Your task to perform on an android device: change text size in settings app Image 0: 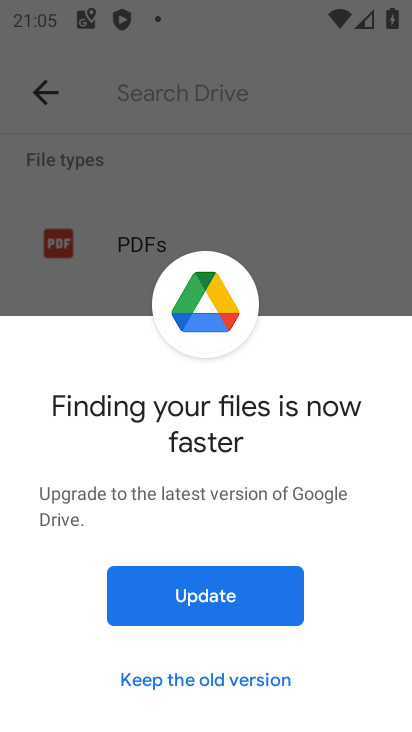
Step 0: press home button
Your task to perform on an android device: change text size in settings app Image 1: 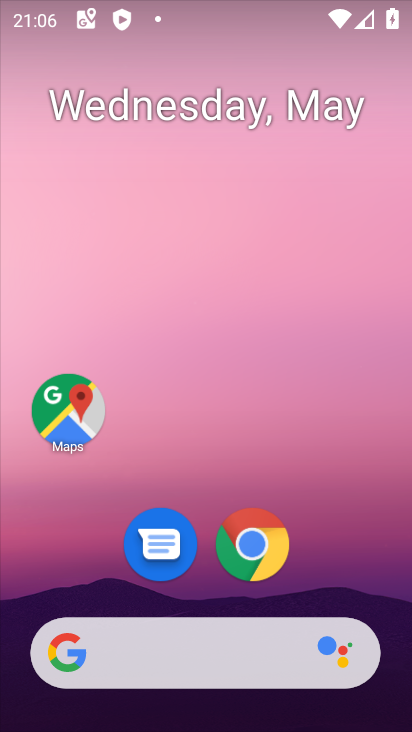
Step 1: drag from (210, 596) to (210, 8)
Your task to perform on an android device: change text size in settings app Image 2: 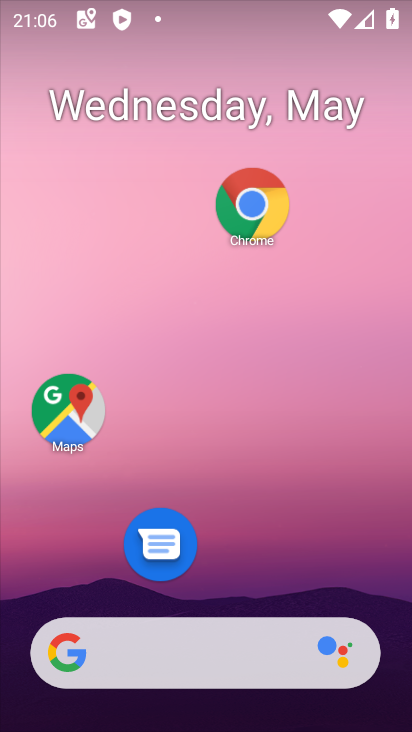
Step 2: drag from (217, 587) to (188, 188)
Your task to perform on an android device: change text size in settings app Image 3: 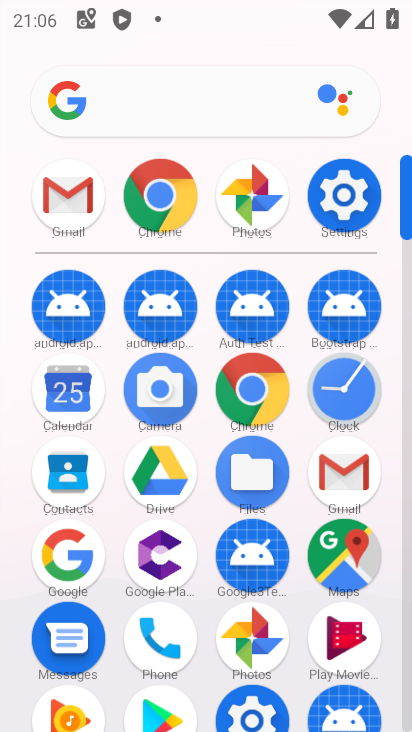
Step 3: click (336, 205)
Your task to perform on an android device: change text size in settings app Image 4: 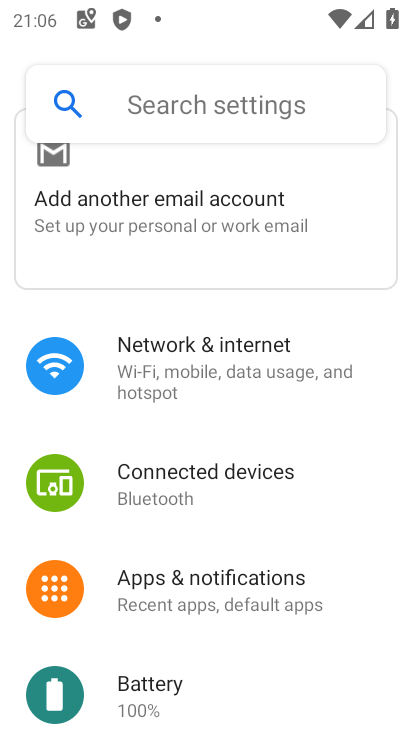
Step 4: drag from (211, 649) to (228, 267)
Your task to perform on an android device: change text size in settings app Image 5: 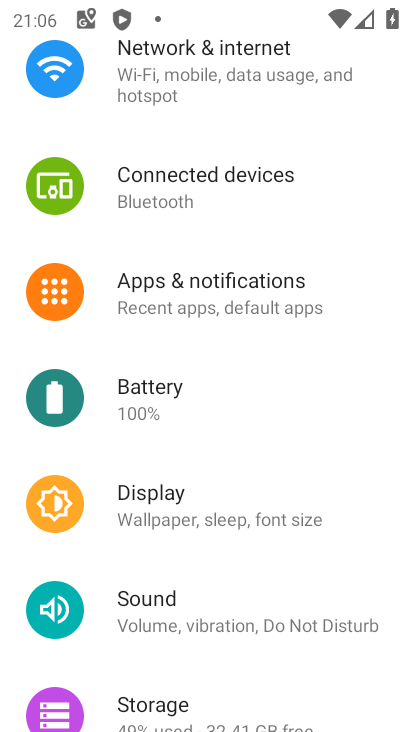
Step 5: drag from (130, 669) to (141, 342)
Your task to perform on an android device: change text size in settings app Image 6: 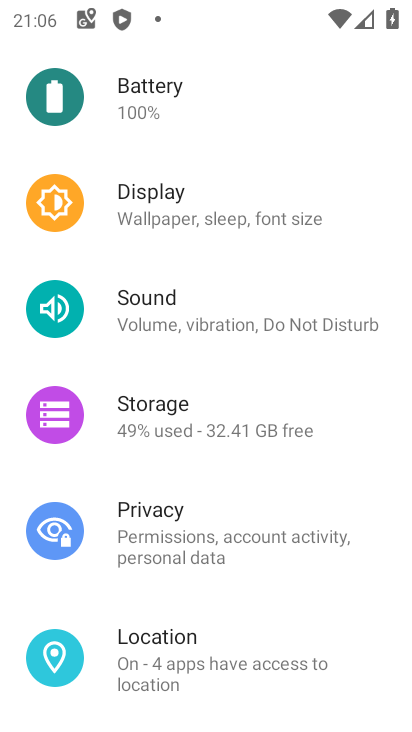
Step 6: click (149, 193)
Your task to perform on an android device: change text size in settings app Image 7: 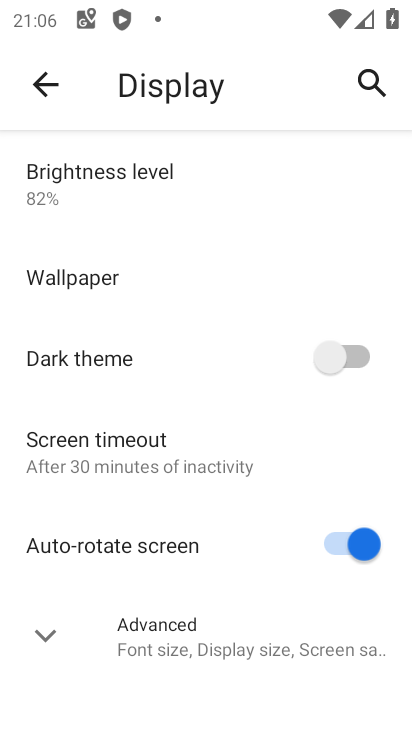
Step 7: click (144, 655)
Your task to perform on an android device: change text size in settings app Image 8: 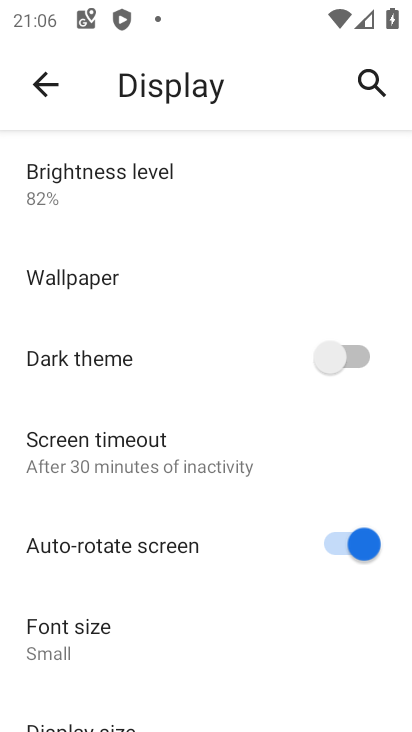
Step 8: click (144, 655)
Your task to perform on an android device: change text size in settings app Image 9: 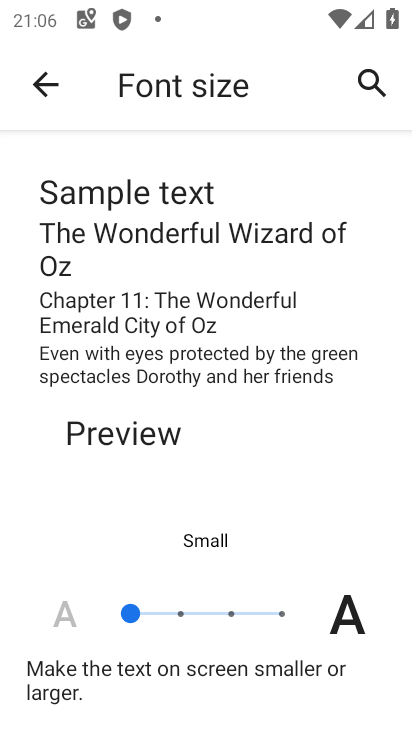
Step 9: click (180, 615)
Your task to perform on an android device: change text size in settings app Image 10: 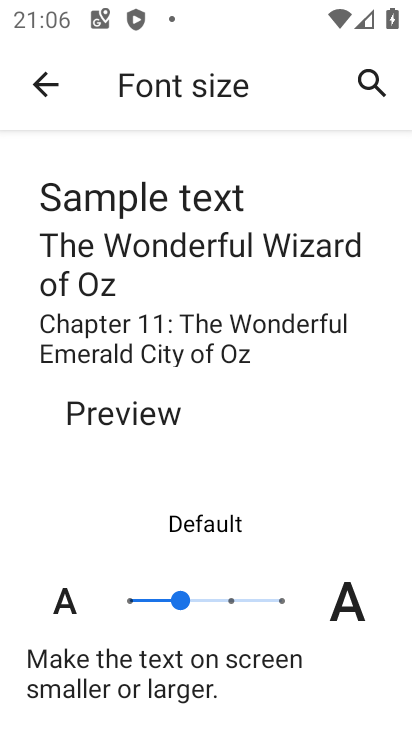
Step 10: task complete